Your task to perform on an android device: turn off smart reply in the gmail app Image 0: 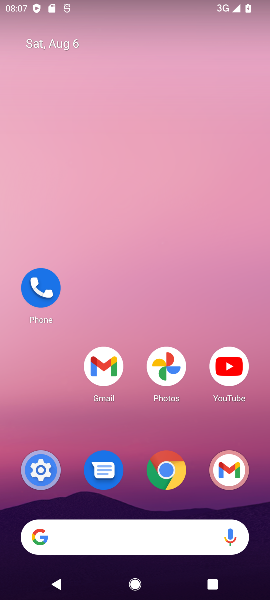
Step 0: drag from (56, 557) to (123, 104)
Your task to perform on an android device: turn off smart reply in the gmail app Image 1: 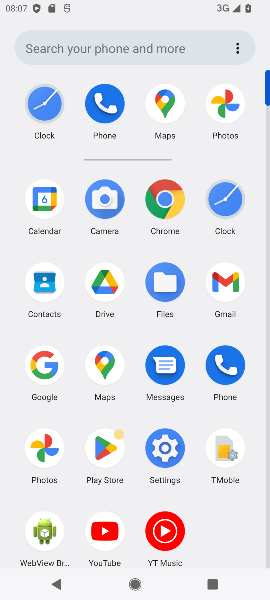
Step 1: click (219, 284)
Your task to perform on an android device: turn off smart reply in the gmail app Image 2: 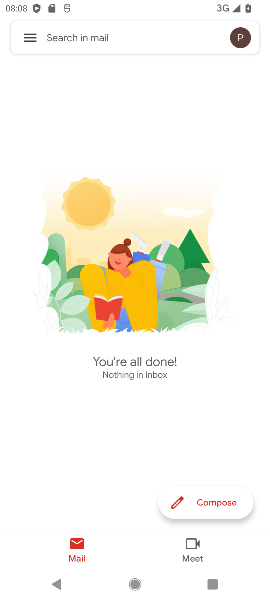
Step 2: press home button
Your task to perform on an android device: turn off smart reply in the gmail app Image 3: 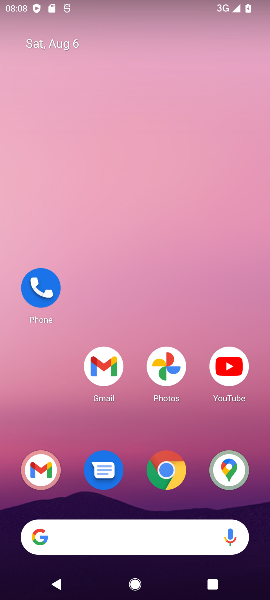
Step 3: drag from (161, 486) to (213, 69)
Your task to perform on an android device: turn off smart reply in the gmail app Image 4: 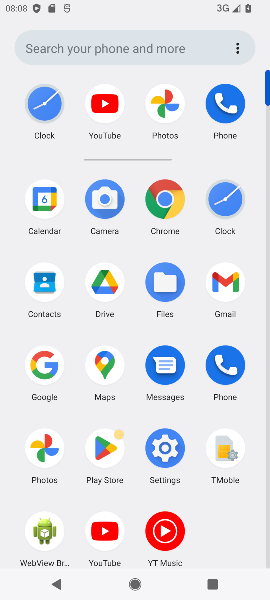
Step 4: click (227, 274)
Your task to perform on an android device: turn off smart reply in the gmail app Image 5: 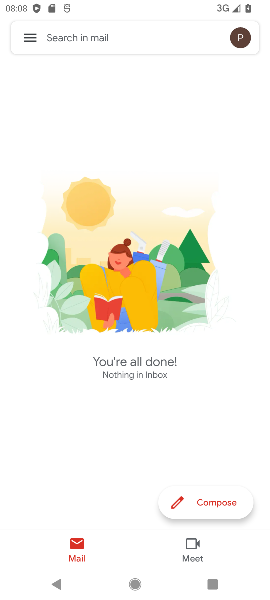
Step 5: click (35, 36)
Your task to perform on an android device: turn off smart reply in the gmail app Image 6: 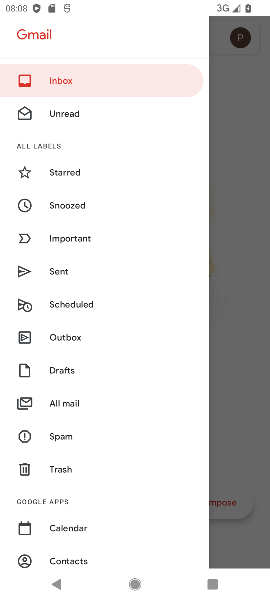
Step 6: drag from (18, 549) to (81, 216)
Your task to perform on an android device: turn off smart reply in the gmail app Image 7: 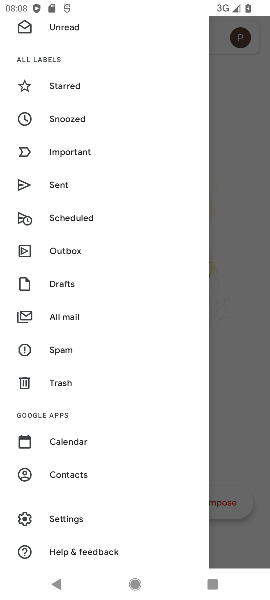
Step 7: click (73, 526)
Your task to perform on an android device: turn off smart reply in the gmail app Image 8: 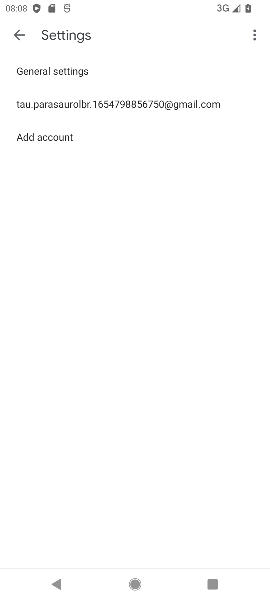
Step 8: click (121, 109)
Your task to perform on an android device: turn off smart reply in the gmail app Image 9: 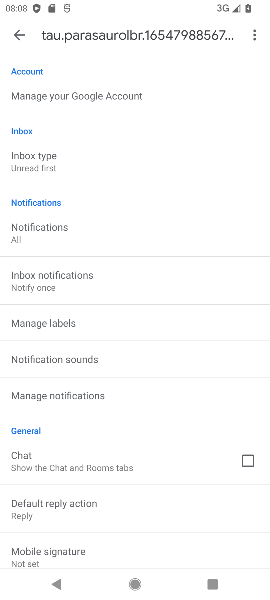
Step 9: task complete